Your task to perform on an android device: open a new tab in the chrome app Image 0: 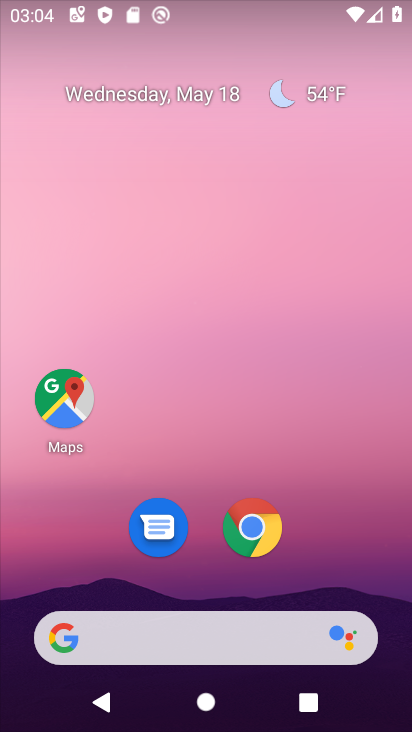
Step 0: click (259, 542)
Your task to perform on an android device: open a new tab in the chrome app Image 1: 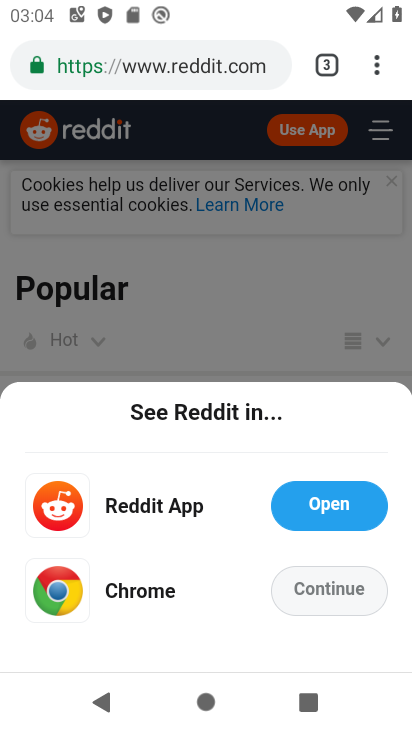
Step 1: click (325, 69)
Your task to perform on an android device: open a new tab in the chrome app Image 2: 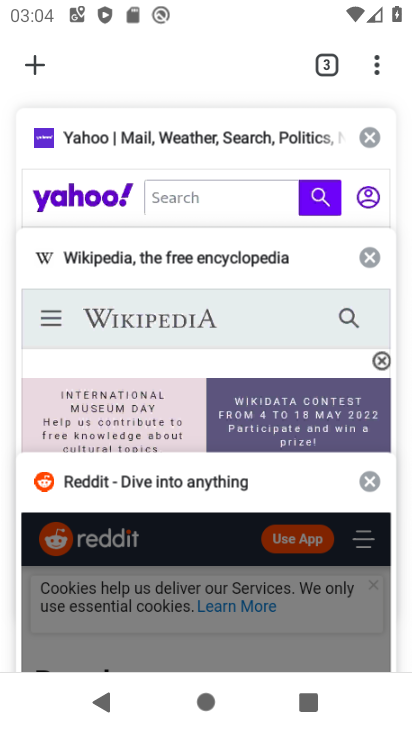
Step 2: click (29, 65)
Your task to perform on an android device: open a new tab in the chrome app Image 3: 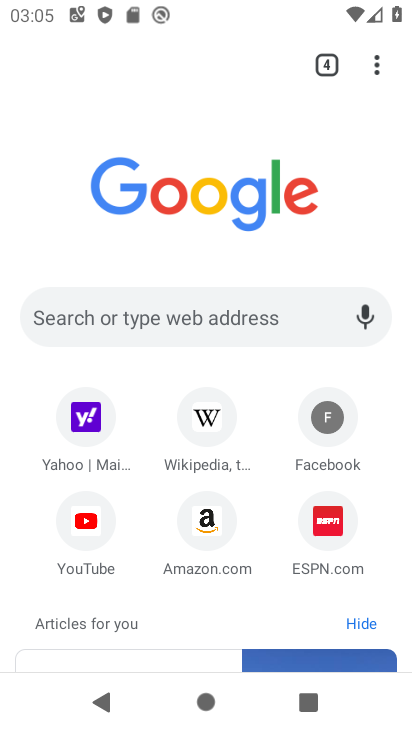
Step 3: task complete